Your task to perform on an android device: turn off priority inbox in the gmail app Image 0: 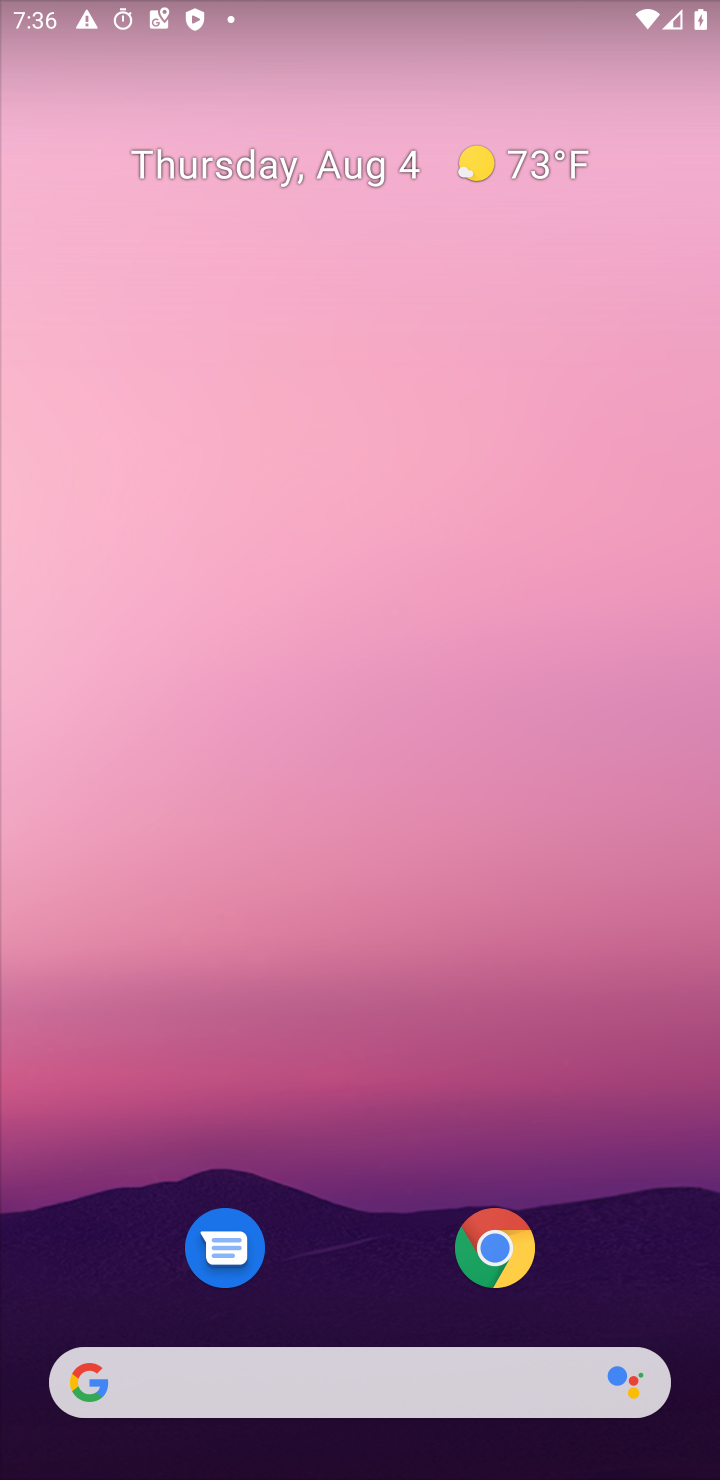
Step 0: press home button
Your task to perform on an android device: turn off priority inbox in the gmail app Image 1: 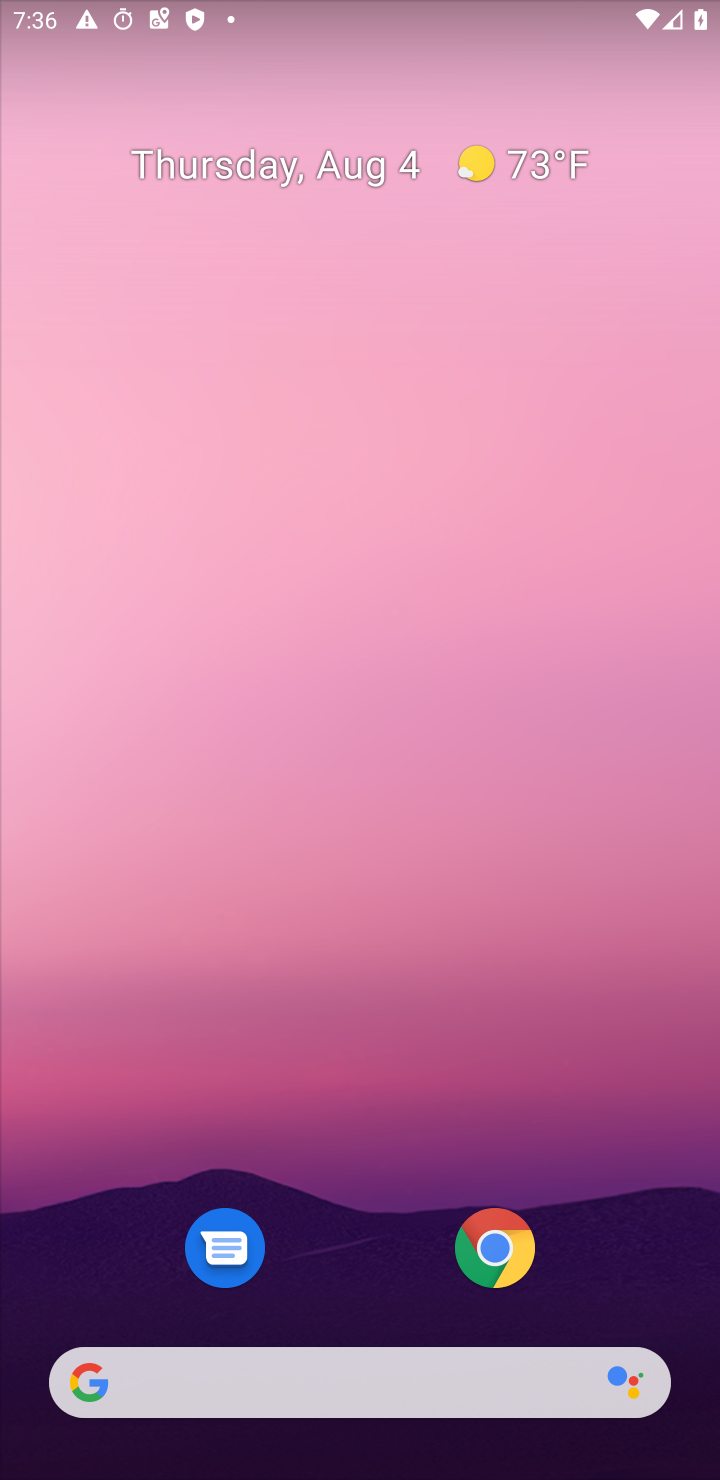
Step 1: drag from (391, 1312) to (332, 294)
Your task to perform on an android device: turn off priority inbox in the gmail app Image 2: 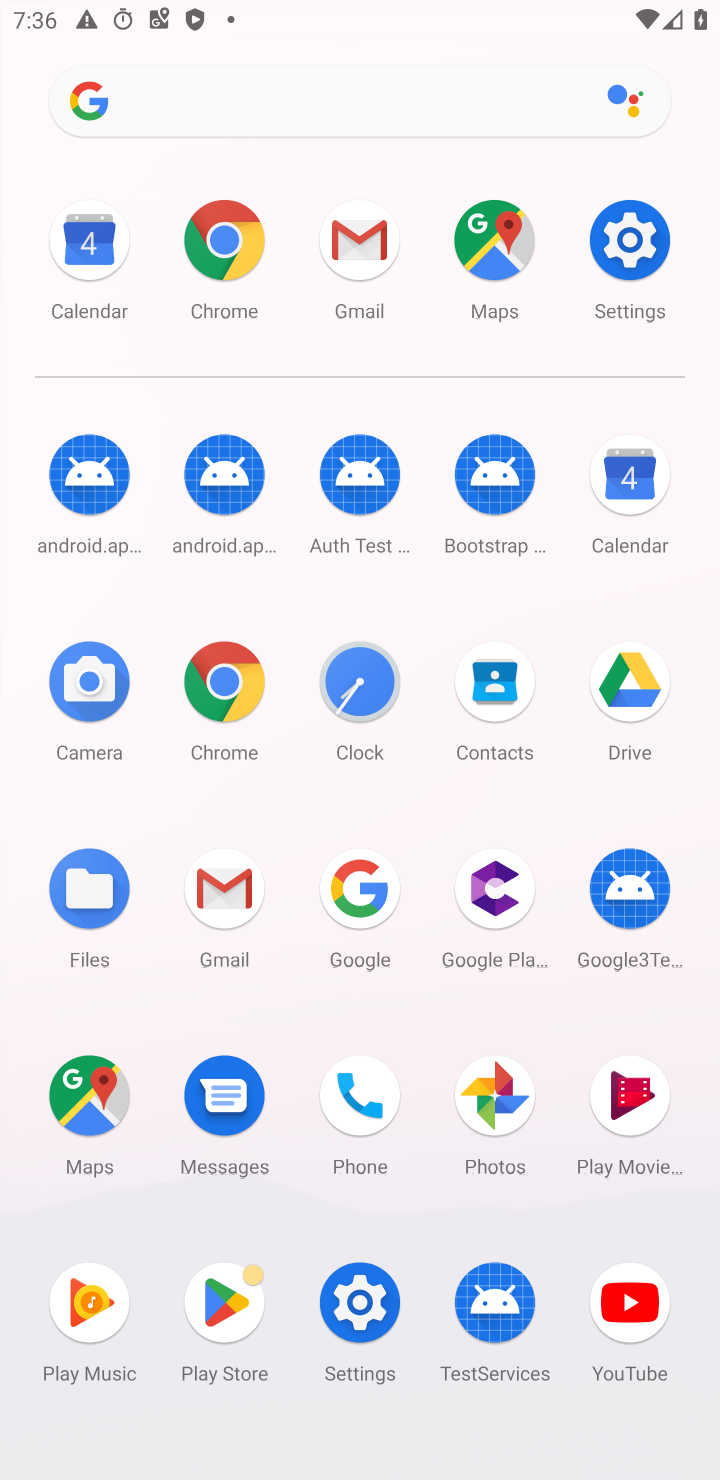
Step 2: click (338, 267)
Your task to perform on an android device: turn off priority inbox in the gmail app Image 3: 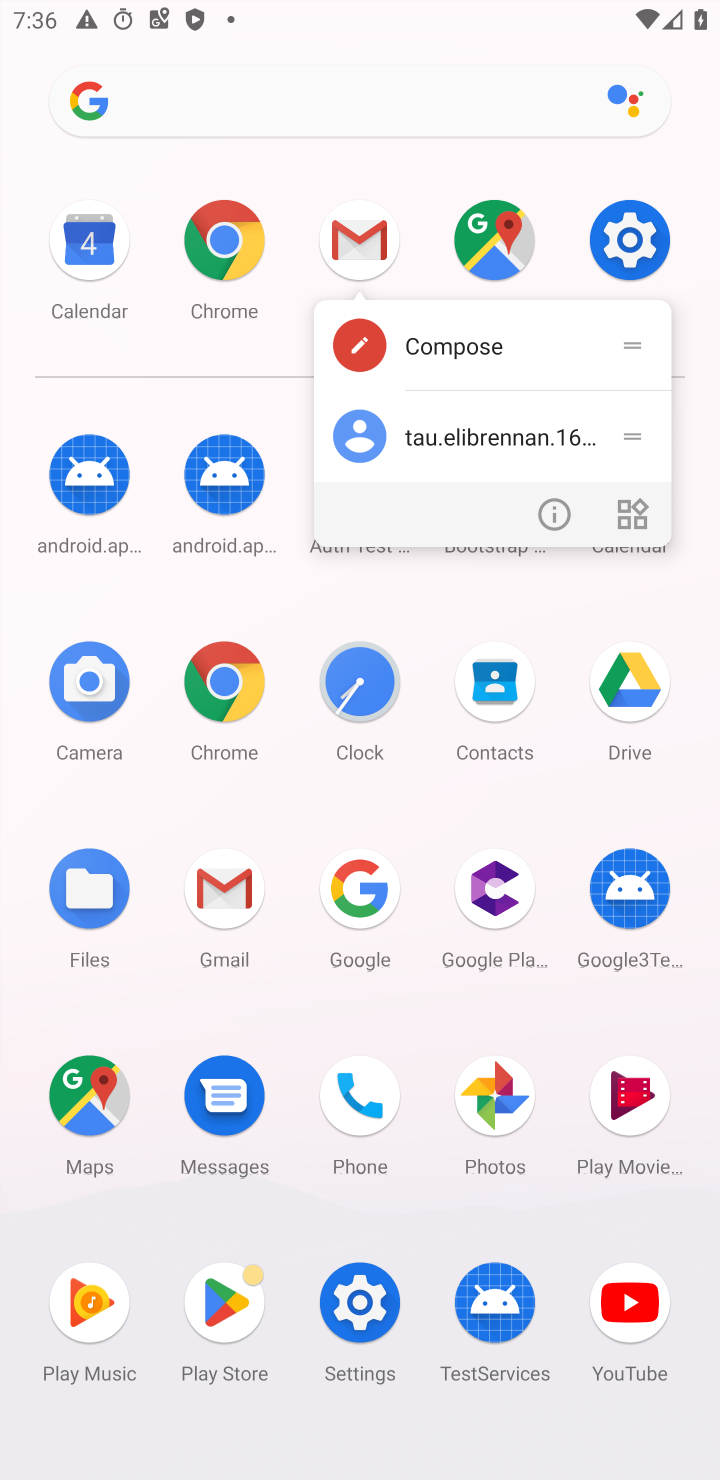
Step 3: click (358, 242)
Your task to perform on an android device: turn off priority inbox in the gmail app Image 4: 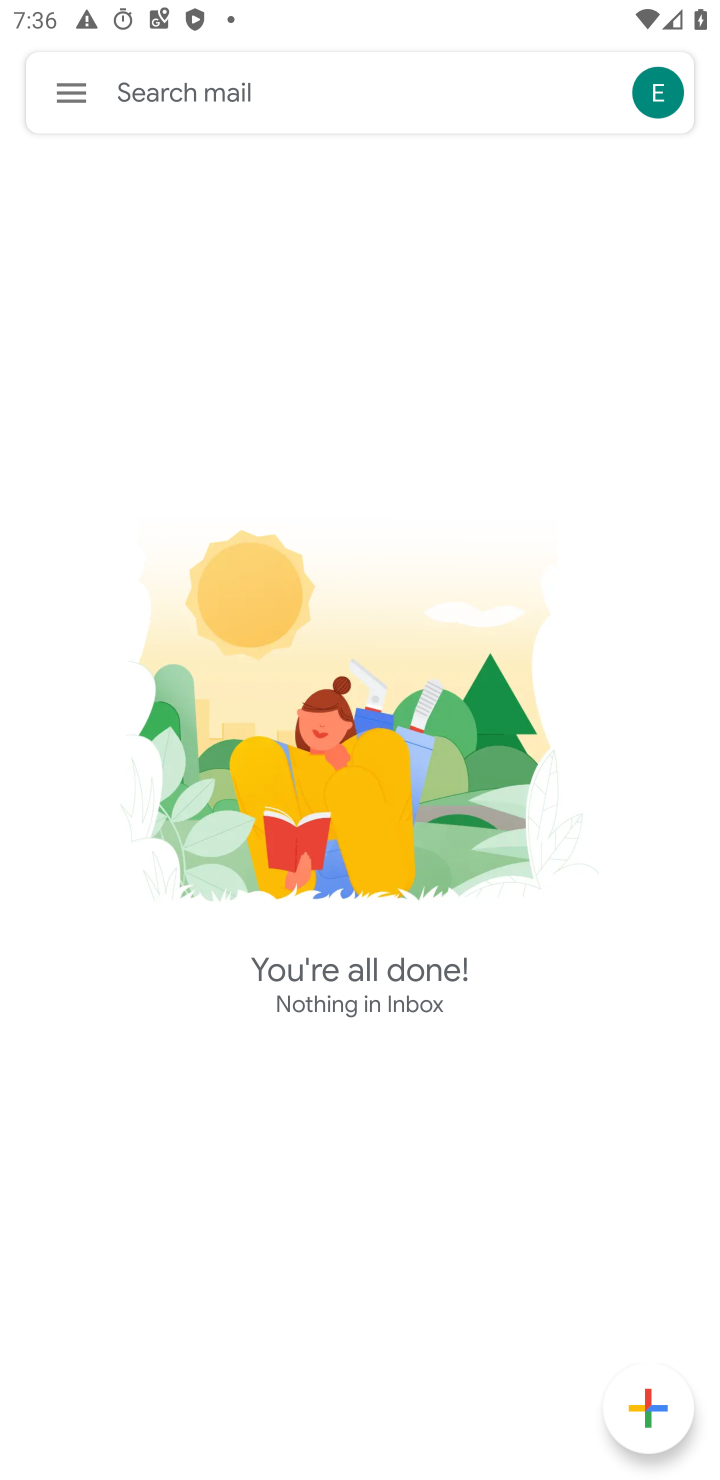
Step 4: click (65, 102)
Your task to perform on an android device: turn off priority inbox in the gmail app Image 5: 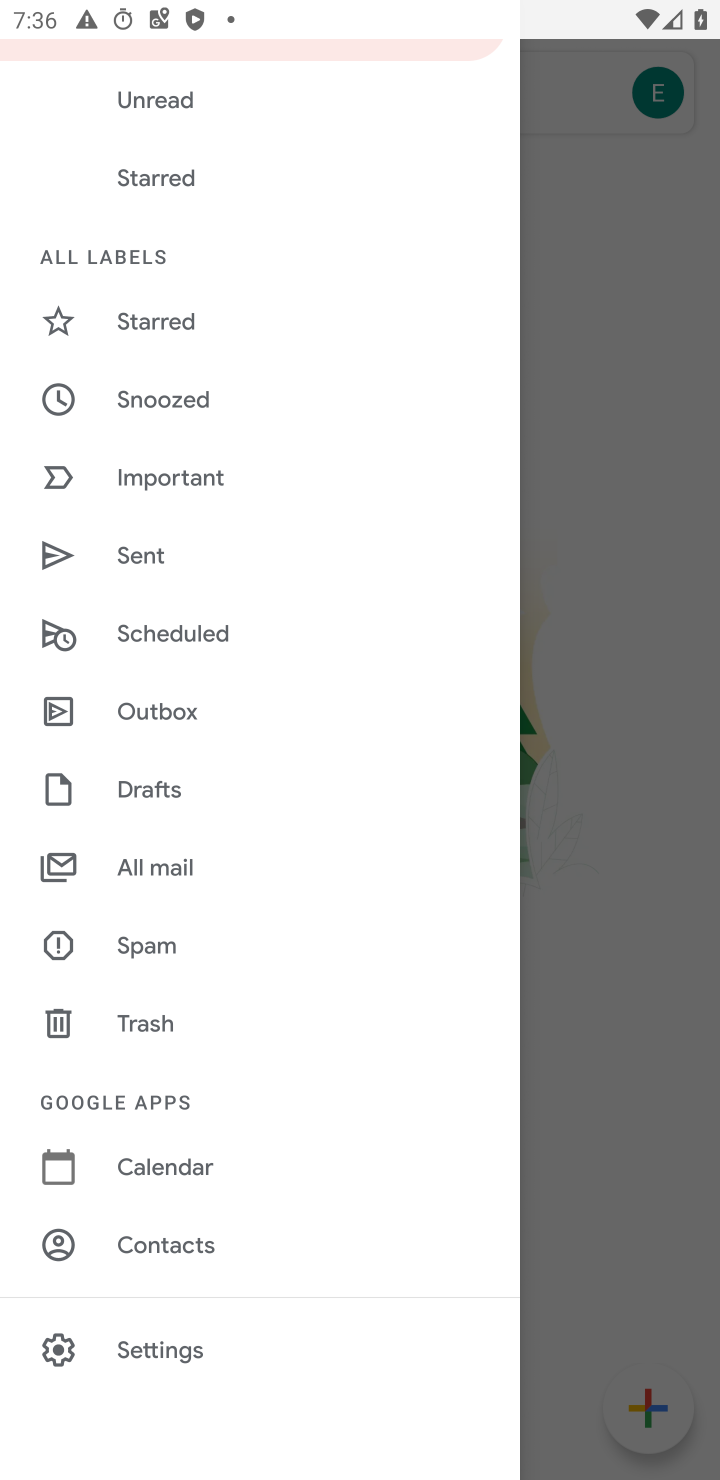
Step 5: click (165, 1333)
Your task to perform on an android device: turn off priority inbox in the gmail app Image 6: 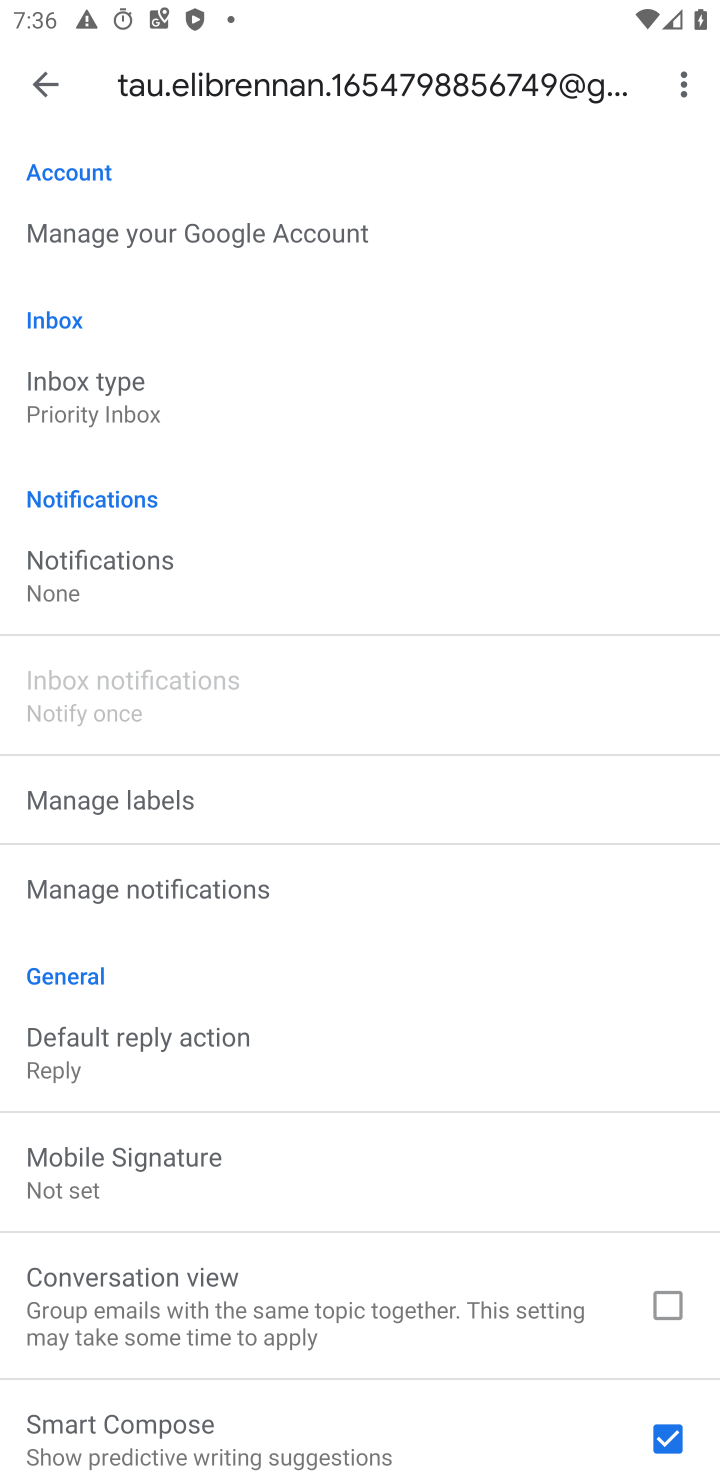
Step 6: click (170, 417)
Your task to perform on an android device: turn off priority inbox in the gmail app Image 7: 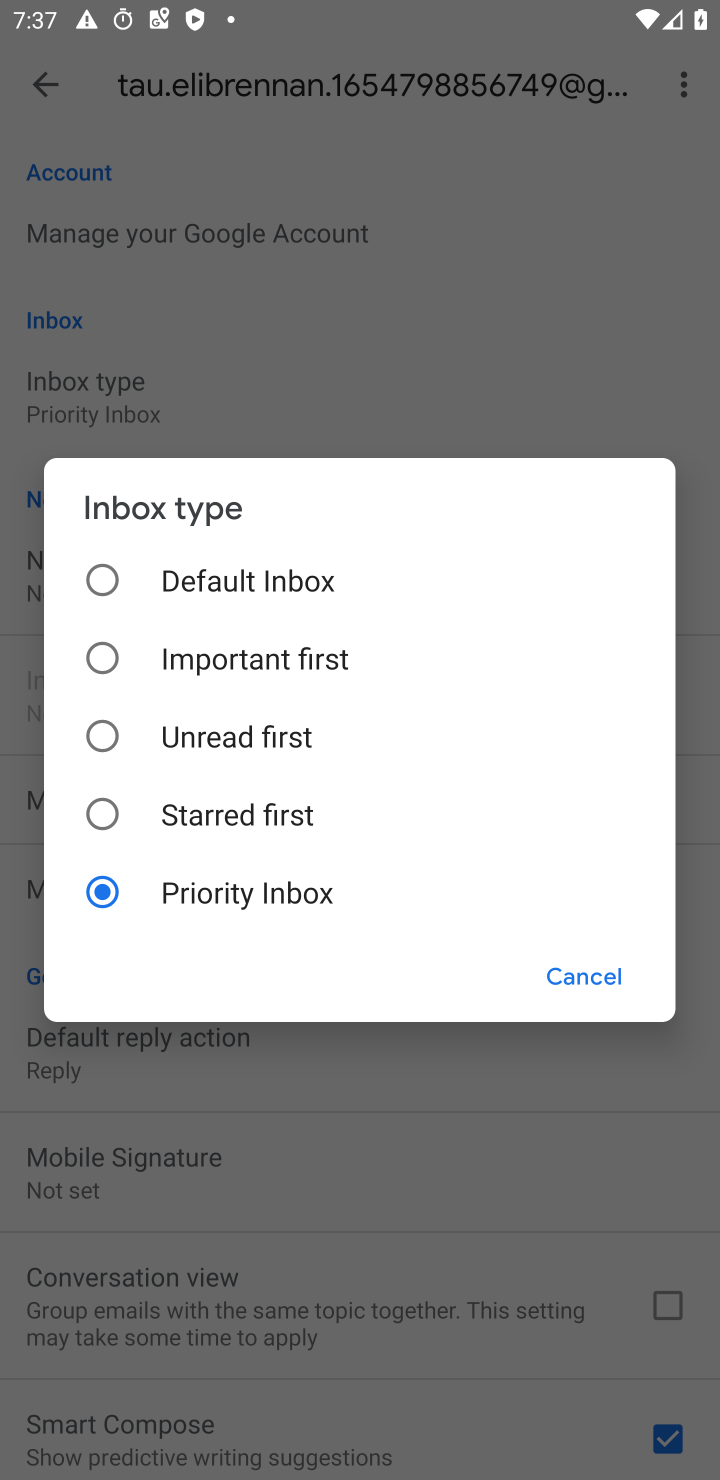
Step 7: click (206, 588)
Your task to perform on an android device: turn off priority inbox in the gmail app Image 8: 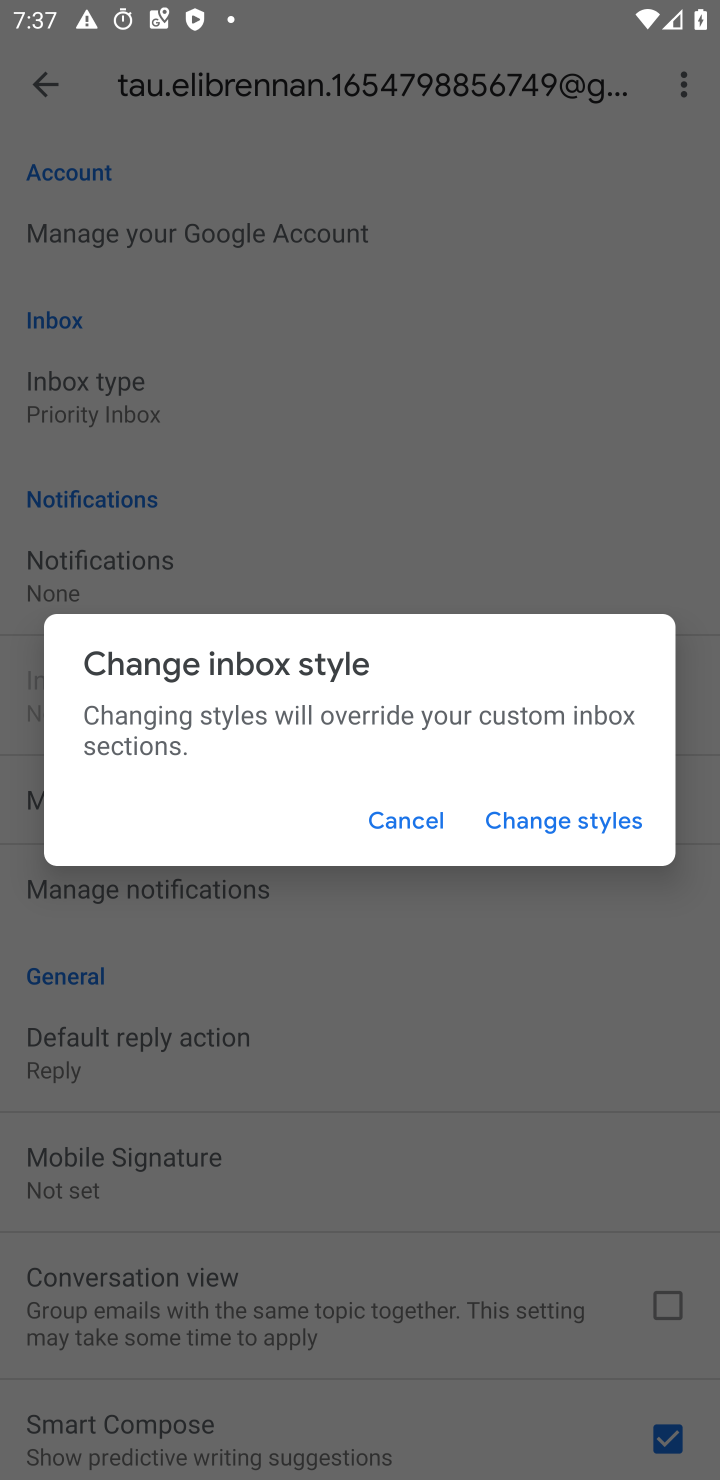
Step 8: click (387, 809)
Your task to perform on an android device: turn off priority inbox in the gmail app Image 9: 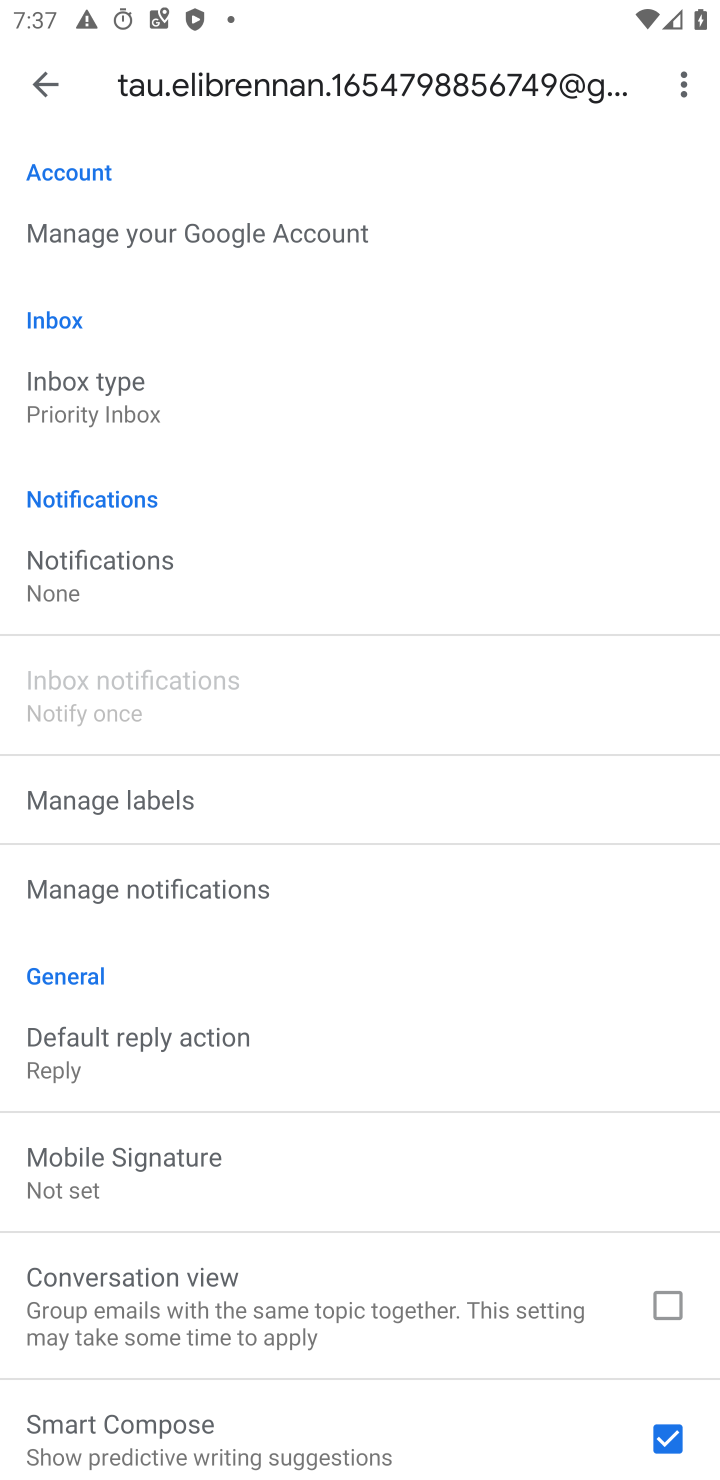
Step 9: click (176, 419)
Your task to perform on an android device: turn off priority inbox in the gmail app Image 10: 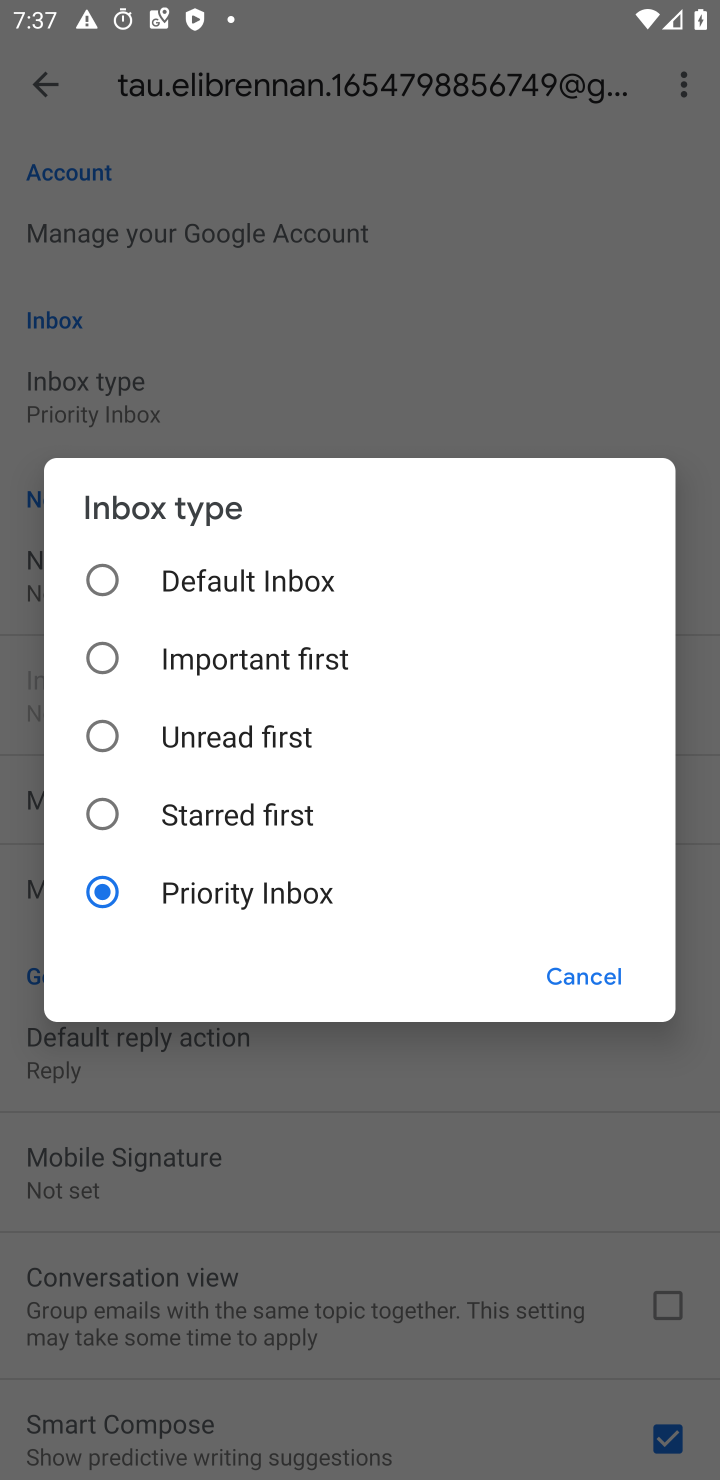
Step 10: click (239, 594)
Your task to perform on an android device: turn off priority inbox in the gmail app Image 11: 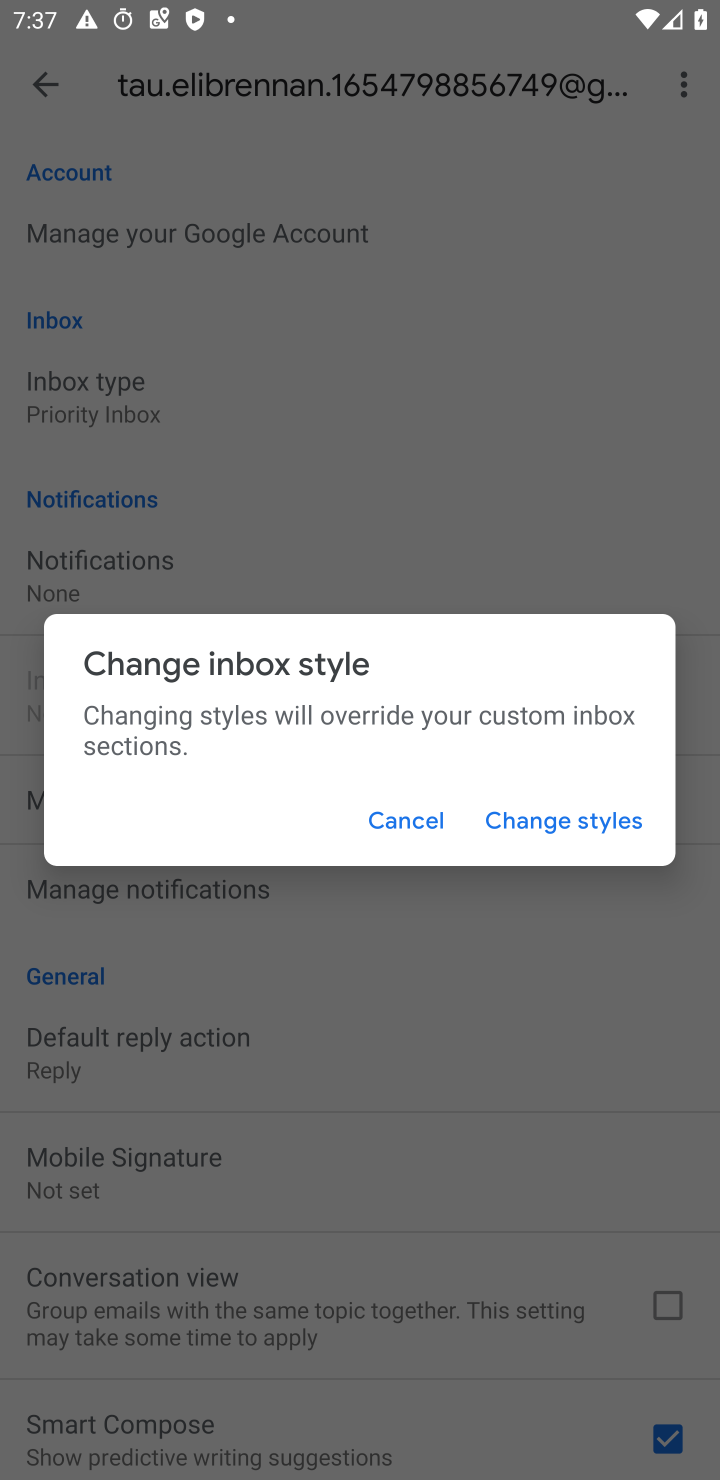
Step 11: task complete